Your task to perform on an android device: Open Youtube and go to "Your channel" Image 0: 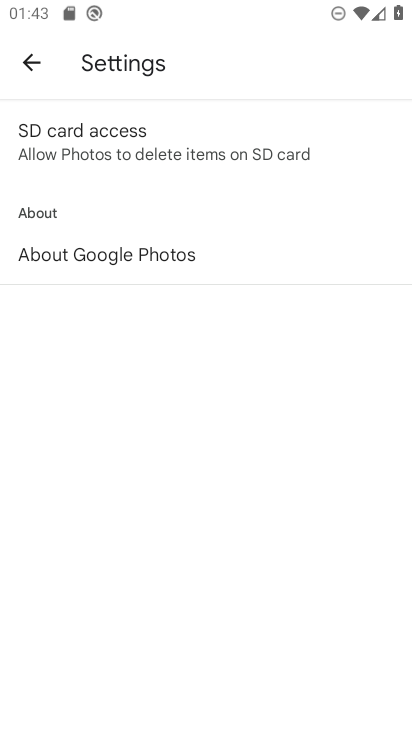
Step 0: press home button
Your task to perform on an android device: Open Youtube and go to "Your channel" Image 1: 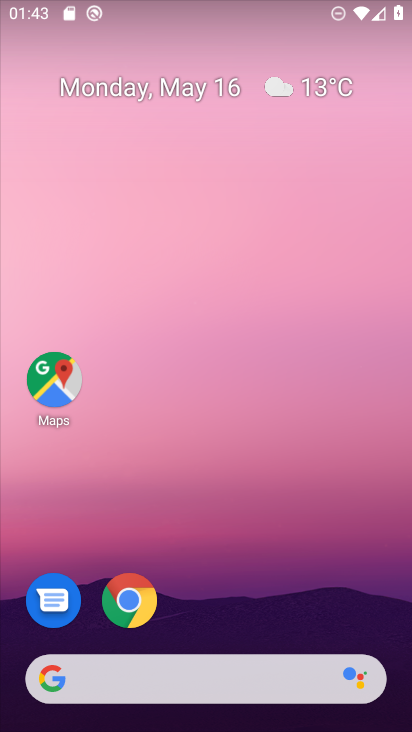
Step 1: drag from (223, 630) to (226, 108)
Your task to perform on an android device: Open Youtube and go to "Your channel" Image 2: 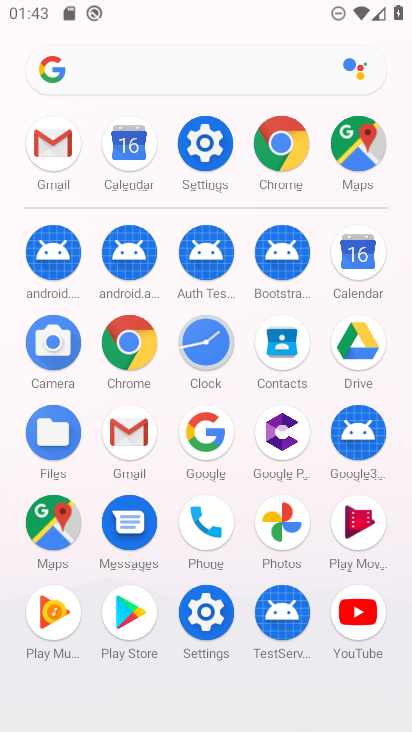
Step 2: click (355, 604)
Your task to perform on an android device: Open Youtube and go to "Your channel" Image 3: 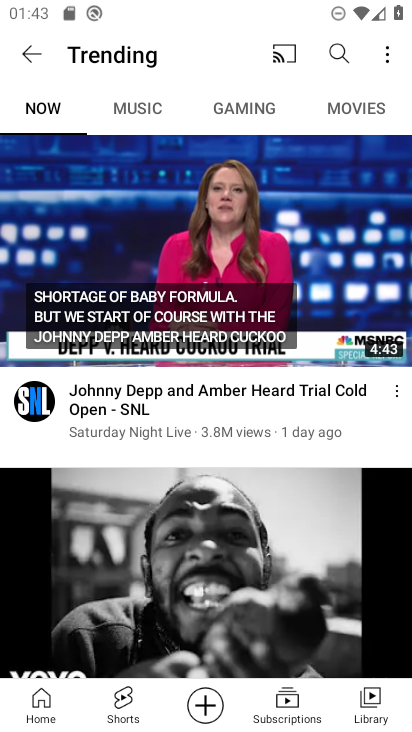
Step 3: click (368, 690)
Your task to perform on an android device: Open Youtube and go to "Your channel" Image 4: 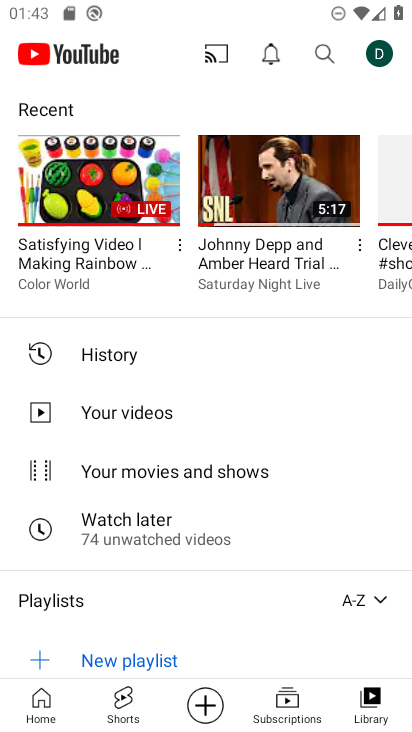
Step 4: click (376, 51)
Your task to perform on an android device: Open Youtube and go to "Your channel" Image 5: 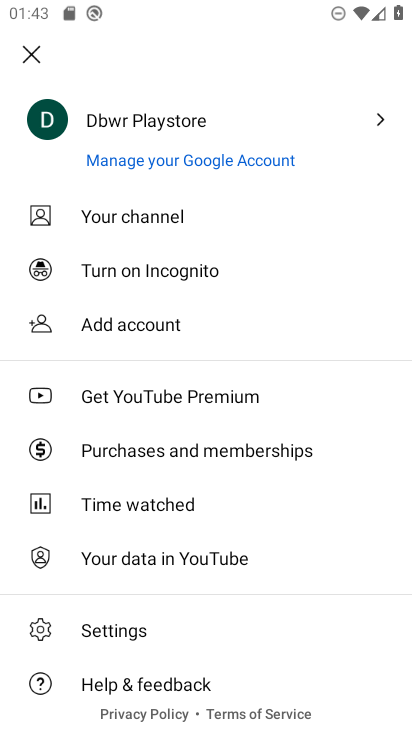
Step 5: click (188, 215)
Your task to perform on an android device: Open Youtube and go to "Your channel" Image 6: 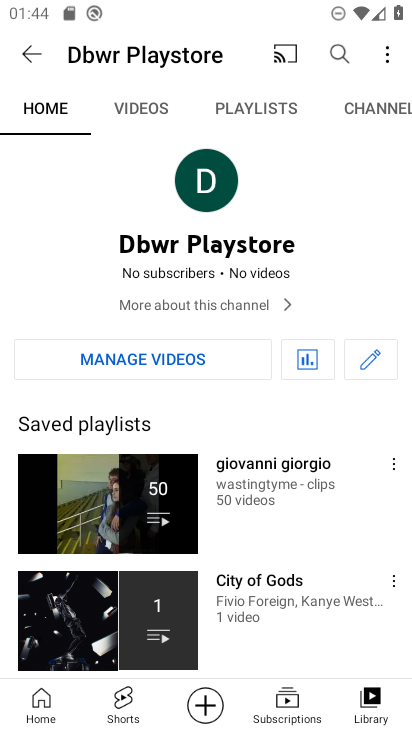
Step 6: task complete